Your task to perform on an android device: turn on translation in the chrome app Image 0: 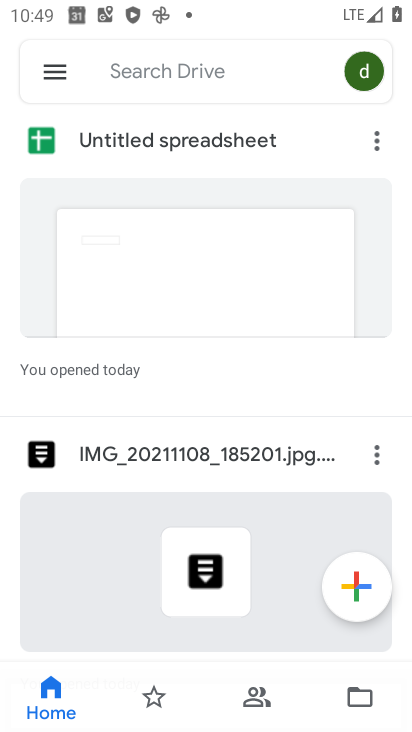
Step 0: press home button
Your task to perform on an android device: turn on translation in the chrome app Image 1: 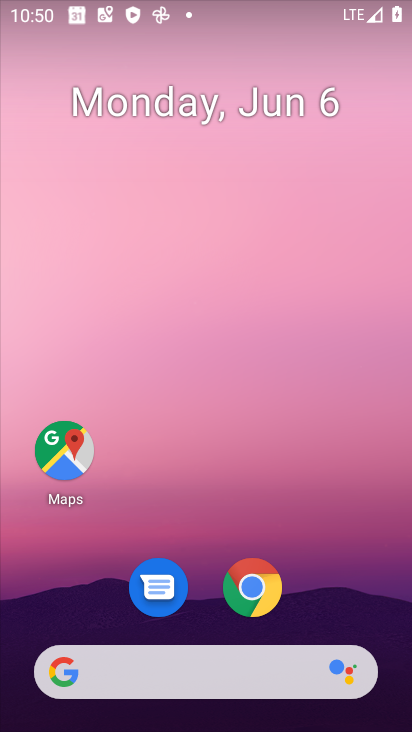
Step 1: click (250, 602)
Your task to perform on an android device: turn on translation in the chrome app Image 2: 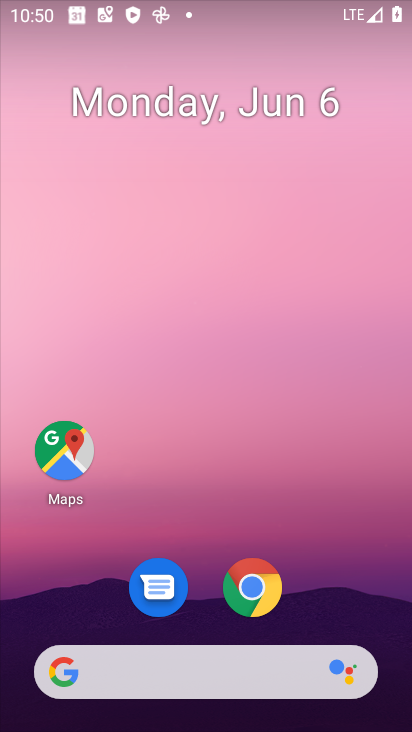
Step 2: click (250, 602)
Your task to perform on an android device: turn on translation in the chrome app Image 3: 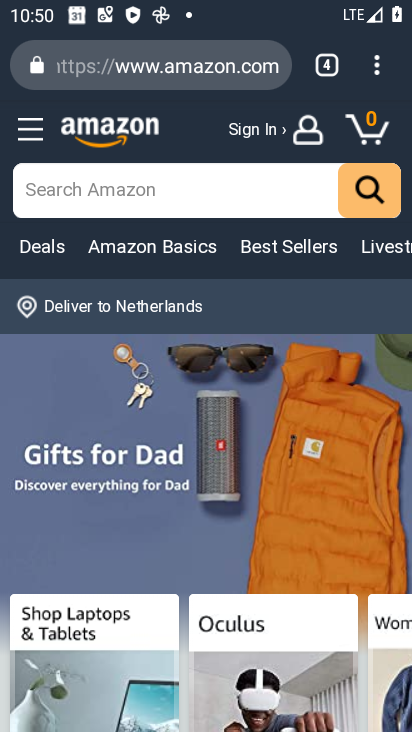
Step 3: click (374, 63)
Your task to perform on an android device: turn on translation in the chrome app Image 4: 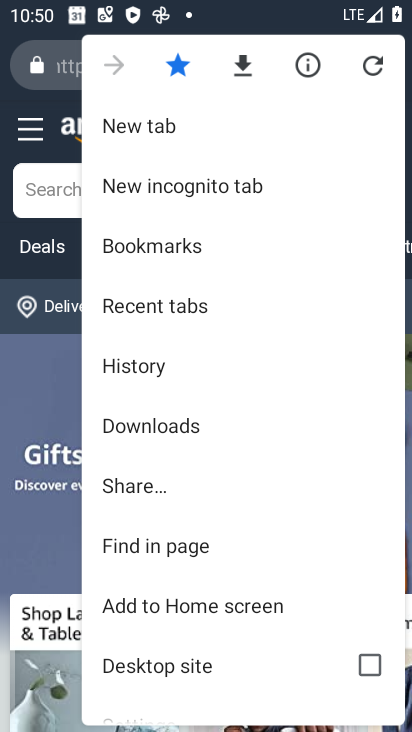
Step 4: drag from (187, 517) to (362, 27)
Your task to perform on an android device: turn on translation in the chrome app Image 5: 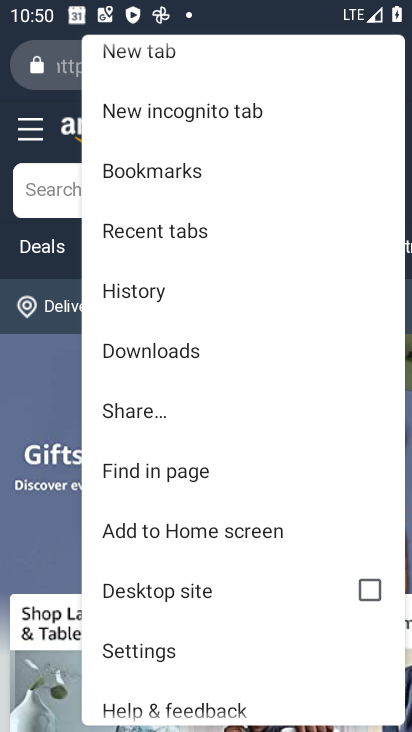
Step 5: click (173, 640)
Your task to perform on an android device: turn on translation in the chrome app Image 6: 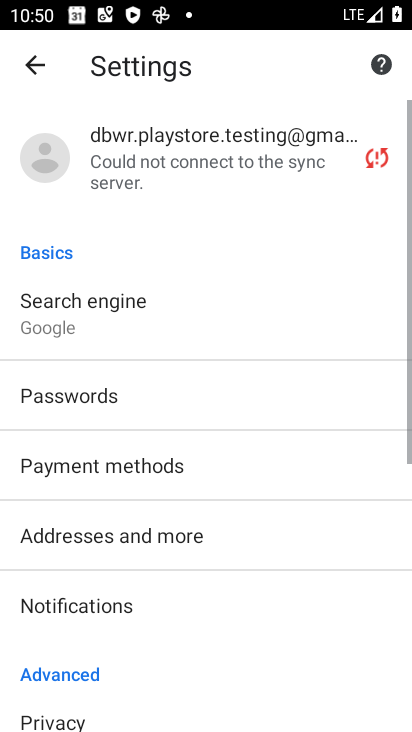
Step 6: drag from (240, 660) to (332, 4)
Your task to perform on an android device: turn on translation in the chrome app Image 7: 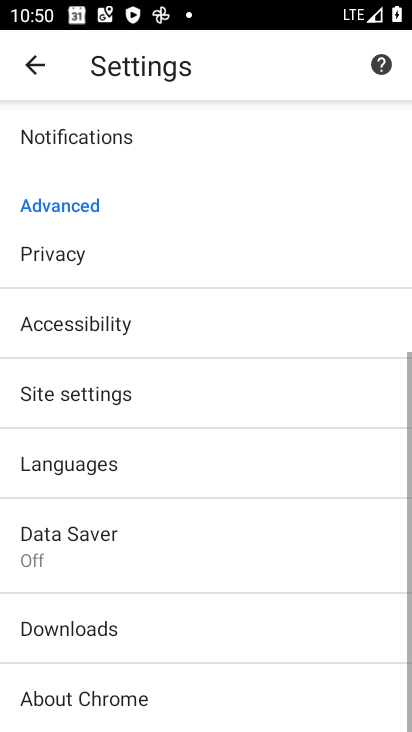
Step 7: click (139, 466)
Your task to perform on an android device: turn on translation in the chrome app Image 8: 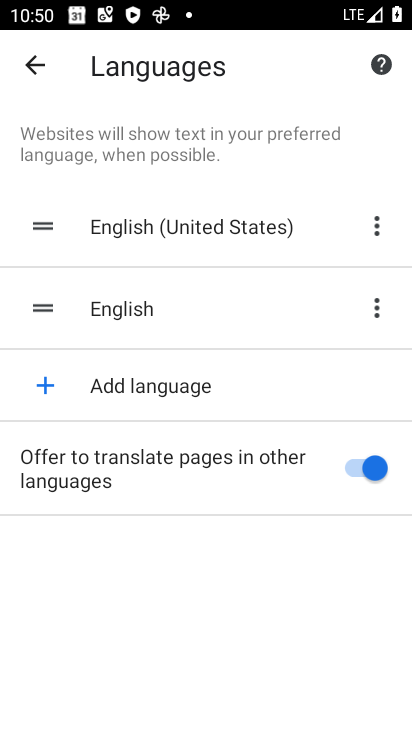
Step 8: task complete